Your task to perform on an android device: turn off data saver in the chrome app Image 0: 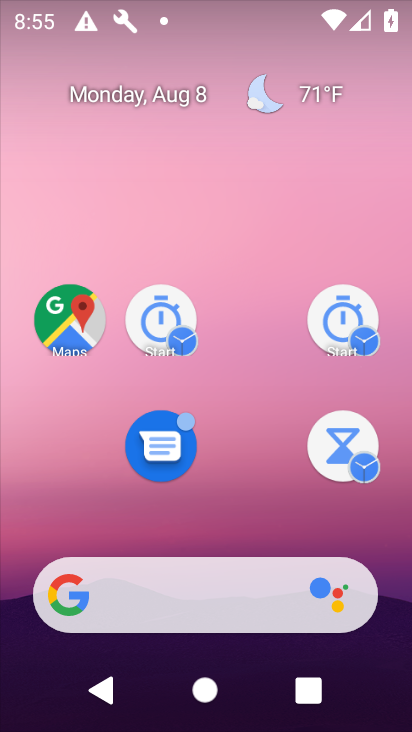
Step 0: drag from (241, 601) to (207, 219)
Your task to perform on an android device: turn off data saver in the chrome app Image 1: 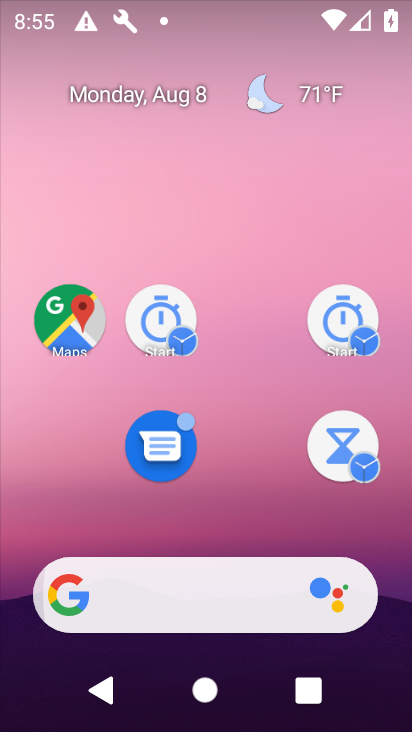
Step 1: drag from (223, 566) to (200, 266)
Your task to perform on an android device: turn off data saver in the chrome app Image 2: 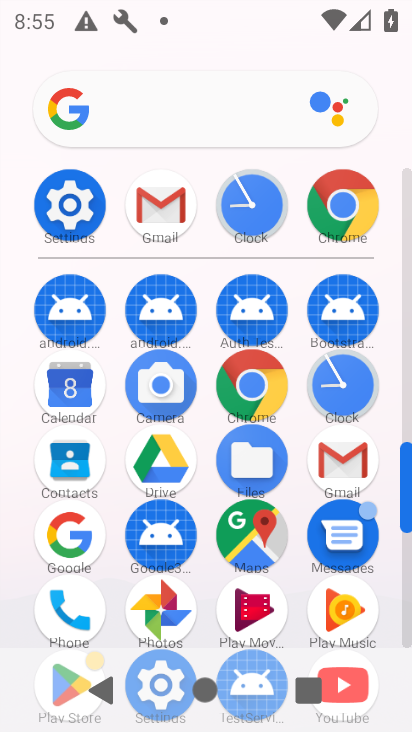
Step 2: drag from (238, 468) to (227, 291)
Your task to perform on an android device: turn off data saver in the chrome app Image 3: 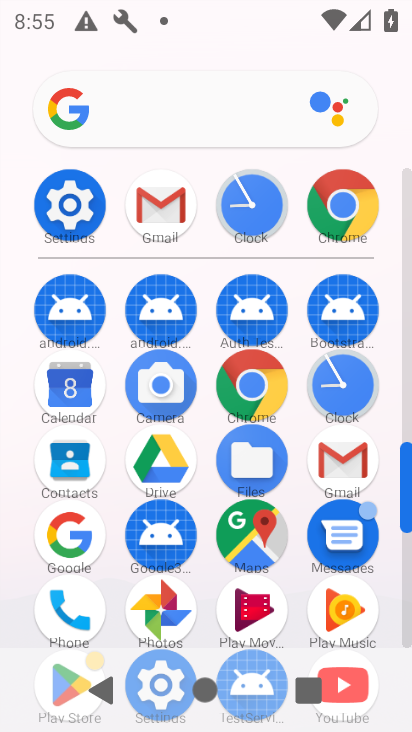
Step 3: click (341, 195)
Your task to perform on an android device: turn off data saver in the chrome app Image 4: 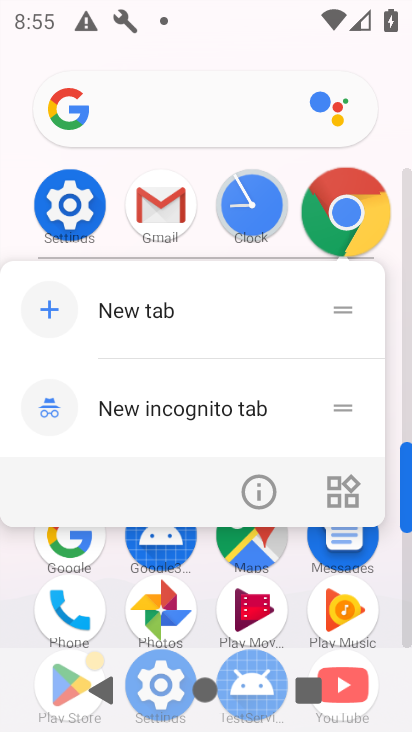
Step 4: click (340, 209)
Your task to perform on an android device: turn off data saver in the chrome app Image 5: 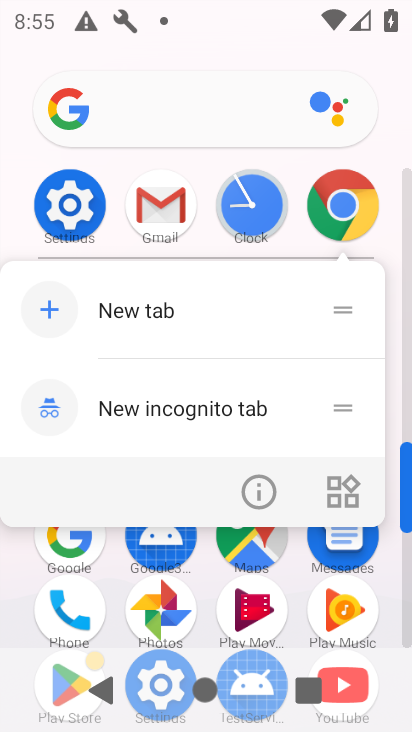
Step 5: click (320, 197)
Your task to perform on an android device: turn off data saver in the chrome app Image 6: 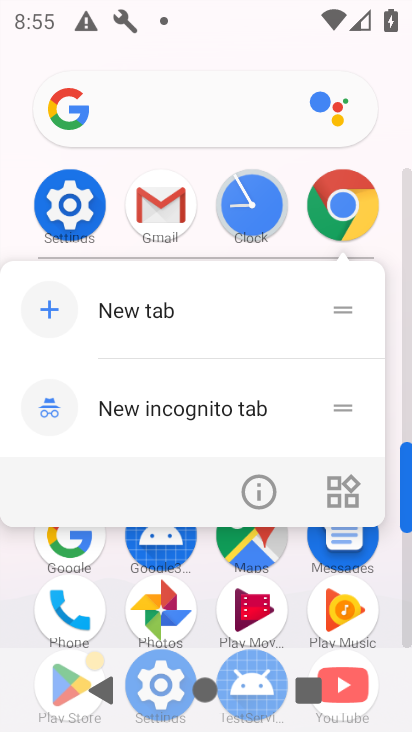
Step 6: click (347, 209)
Your task to perform on an android device: turn off data saver in the chrome app Image 7: 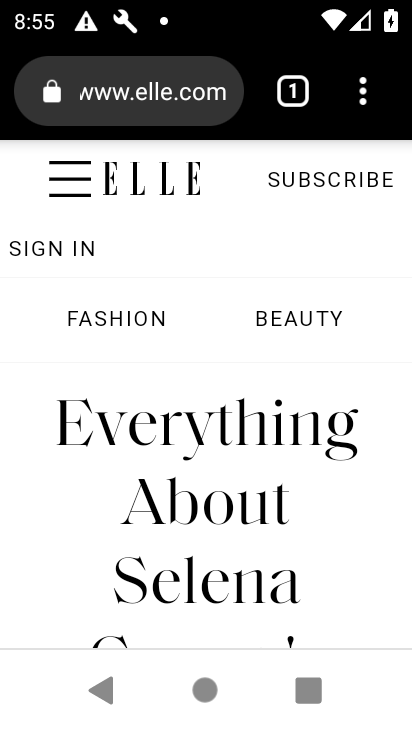
Step 7: drag from (360, 84) to (74, 481)
Your task to perform on an android device: turn off data saver in the chrome app Image 8: 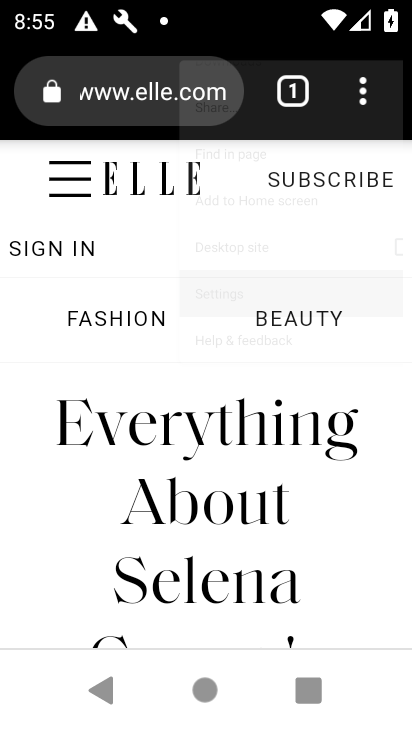
Step 8: click (74, 481)
Your task to perform on an android device: turn off data saver in the chrome app Image 9: 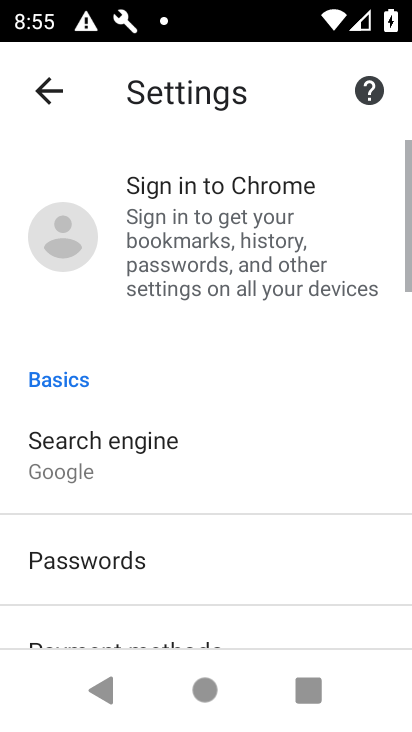
Step 9: drag from (204, 508) to (218, 163)
Your task to perform on an android device: turn off data saver in the chrome app Image 10: 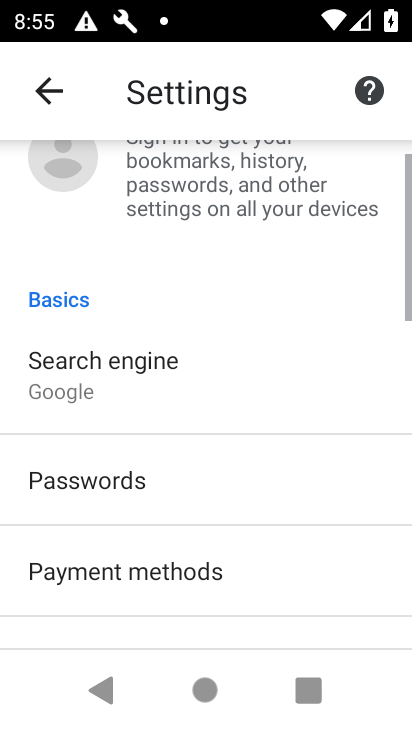
Step 10: drag from (253, 290) to (253, 150)
Your task to perform on an android device: turn off data saver in the chrome app Image 11: 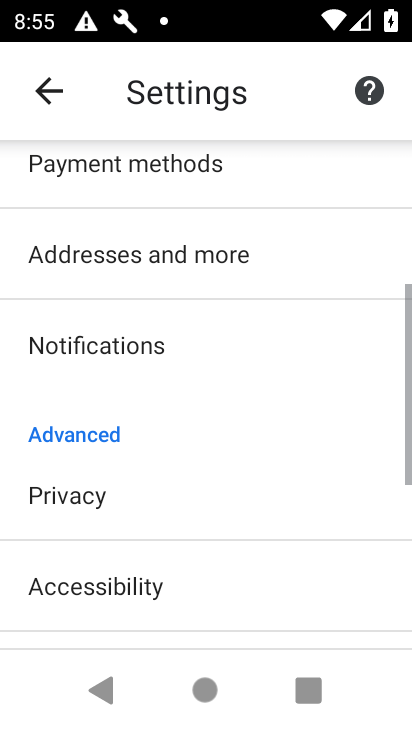
Step 11: drag from (285, 473) to (294, 275)
Your task to perform on an android device: turn off data saver in the chrome app Image 12: 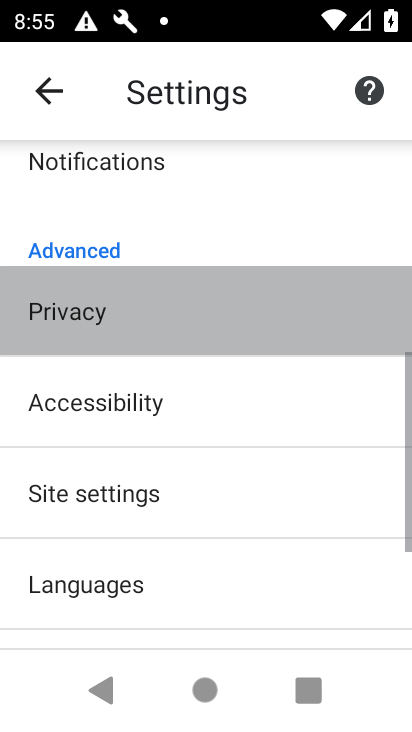
Step 12: drag from (325, 396) to (322, 111)
Your task to perform on an android device: turn off data saver in the chrome app Image 13: 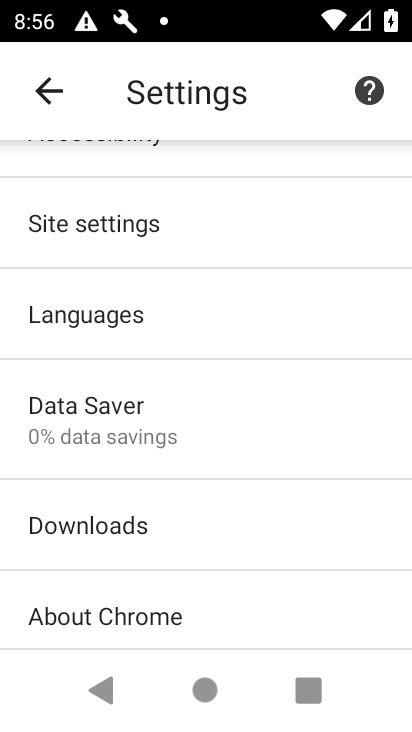
Step 13: click (90, 420)
Your task to perform on an android device: turn off data saver in the chrome app Image 14: 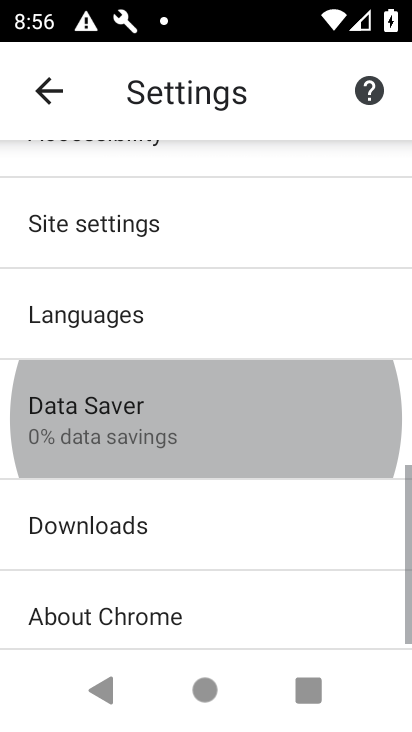
Step 14: click (88, 421)
Your task to perform on an android device: turn off data saver in the chrome app Image 15: 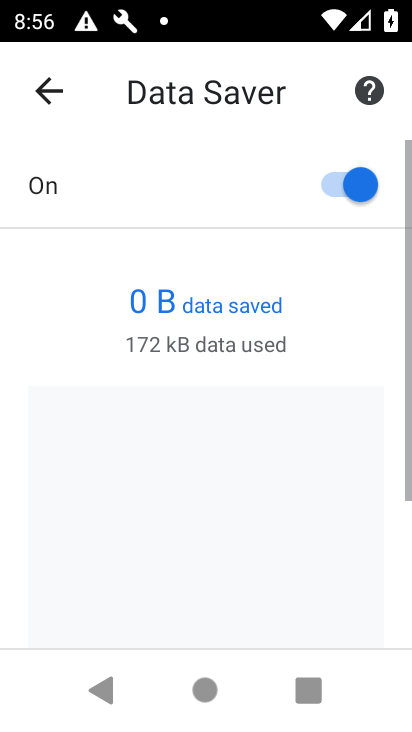
Step 15: click (354, 176)
Your task to perform on an android device: turn off data saver in the chrome app Image 16: 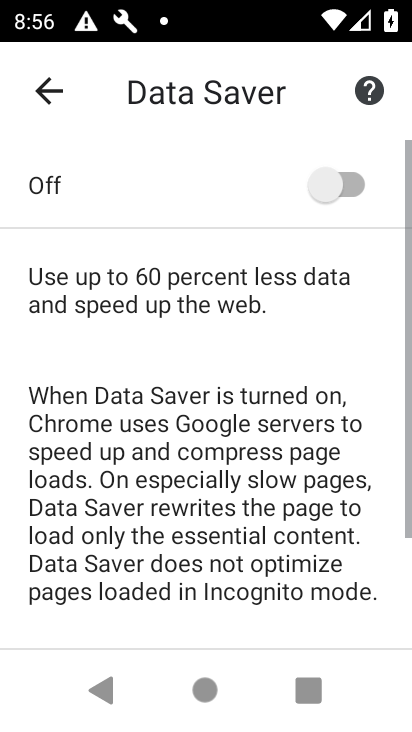
Step 16: task complete